Your task to perform on an android device: turn off javascript in the chrome app Image 0: 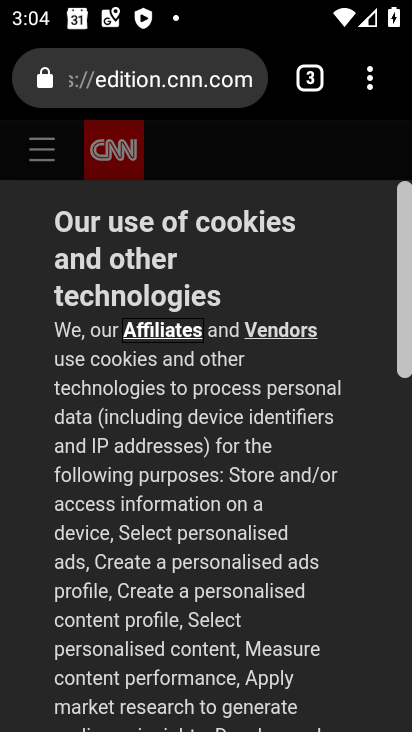
Step 0: press home button
Your task to perform on an android device: turn off javascript in the chrome app Image 1: 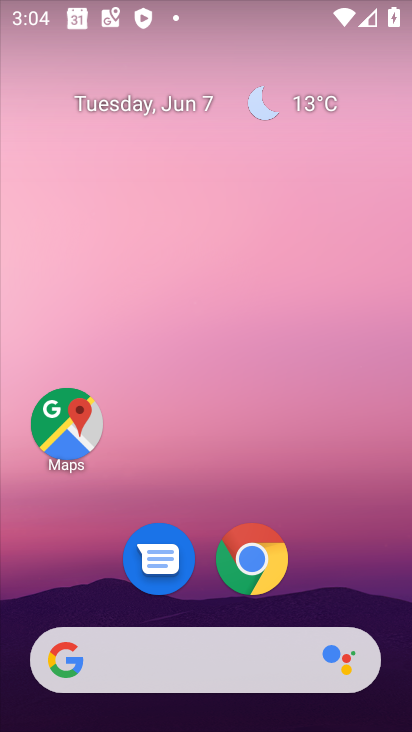
Step 1: click (252, 554)
Your task to perform on an android device: turn off javascript in the chrome app Image 2: 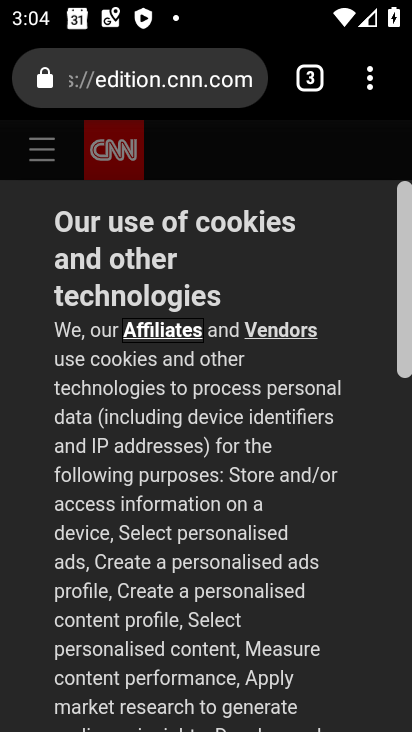
Step 2: click (371, 75)
Your task to perform on an android device: turn off javascript in the chrome app Image 3: 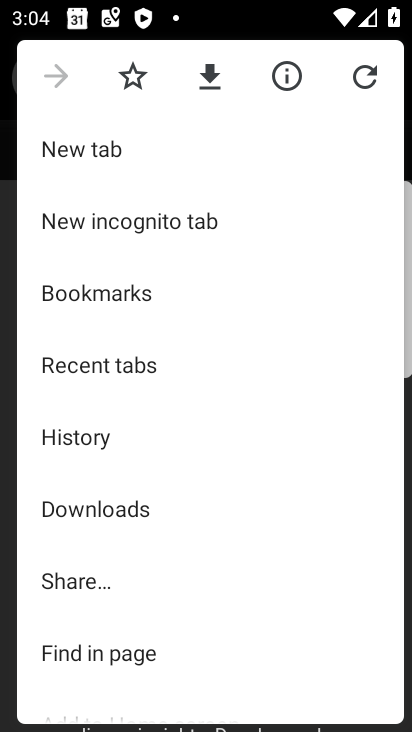
Step 3: drag from (128, 408) to (200, 276)
Your task to perform on an android device: turn off javascript in the chrome app Image 4: 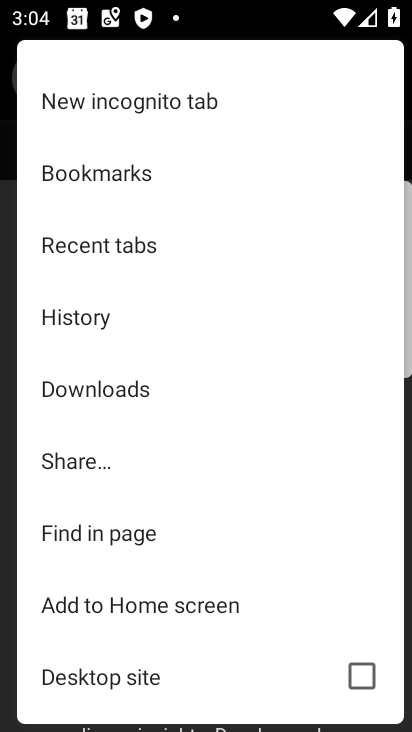
Step 4: drag from (110, 480) to (191, 304)
Your task to perform on an android device: turn off javascript in the chrome app Image 5: 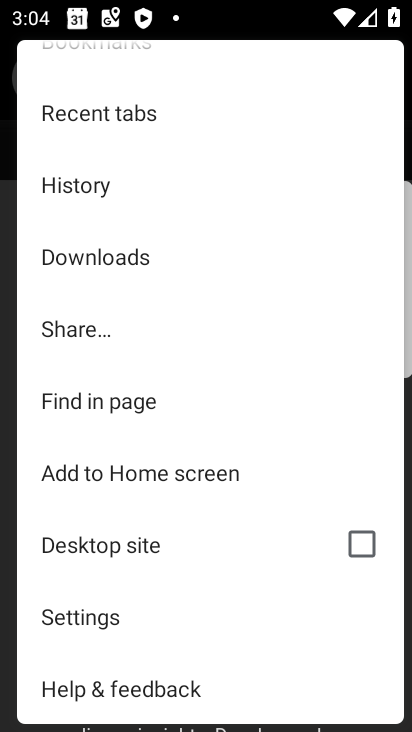
Step 5: click (88, 609)
Your task to perform on an android device: turn off javascript in the chrome app Image 6: 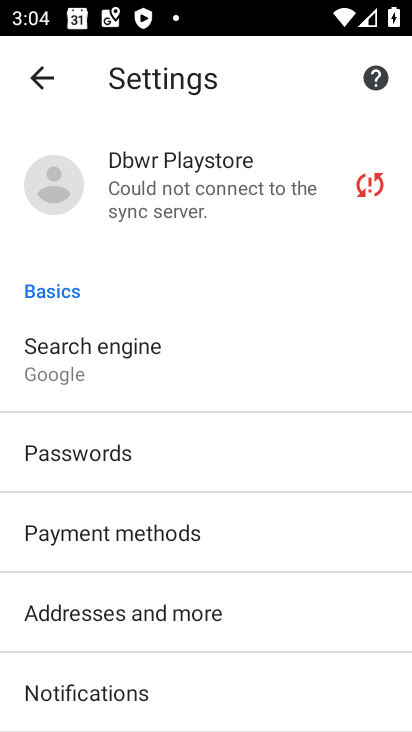
Step 6: drag from (129, 553) to (225, 401)
Your task to perform on an android device: turn off javascript in the chrome app Image 7: 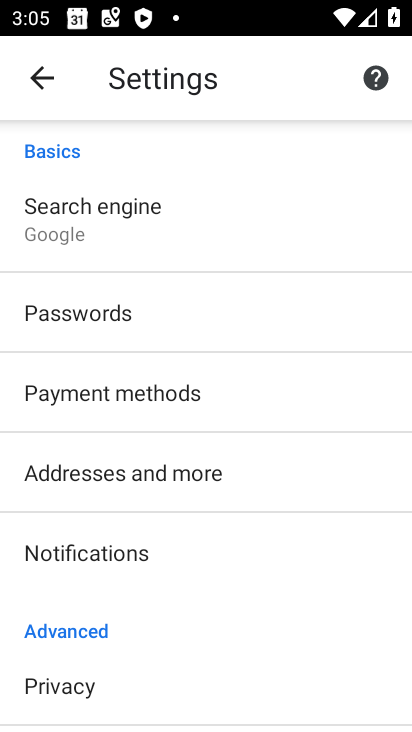
Step 7: drag from (124, 596) to (218, 442)
Your task to perform on an android device: turn off javascript in the chrome app Image 8: 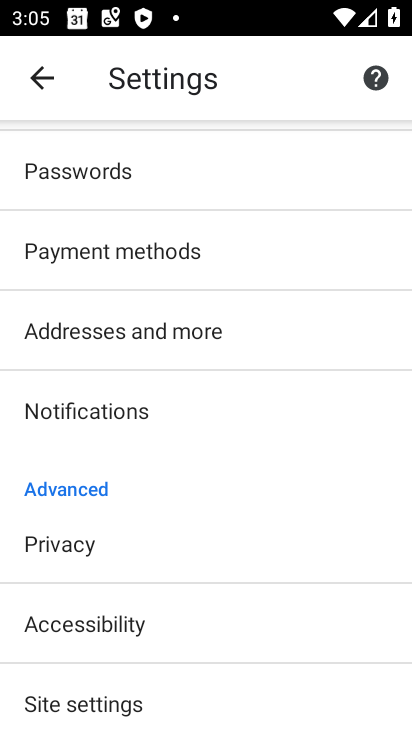
Step 8: drag from (166, 641) to (228, 496)
Your task to perform on an android device: turn off javascript in the chrome app Image 9: 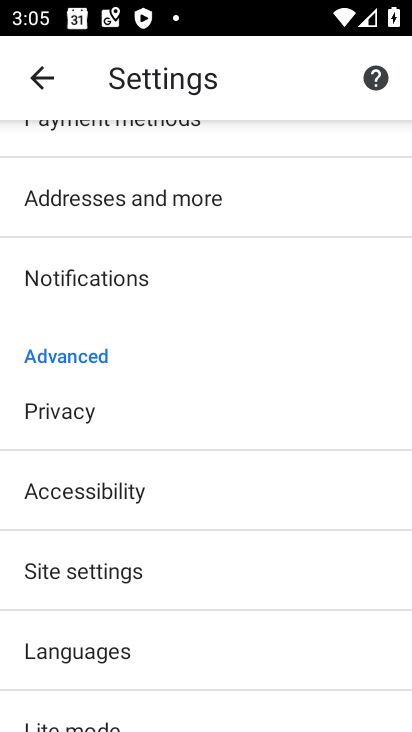
Step 9: drag from (171, 578) to (261, 462)
Your task to perform on an android device: turn off javascript in the chrome app Image 10: 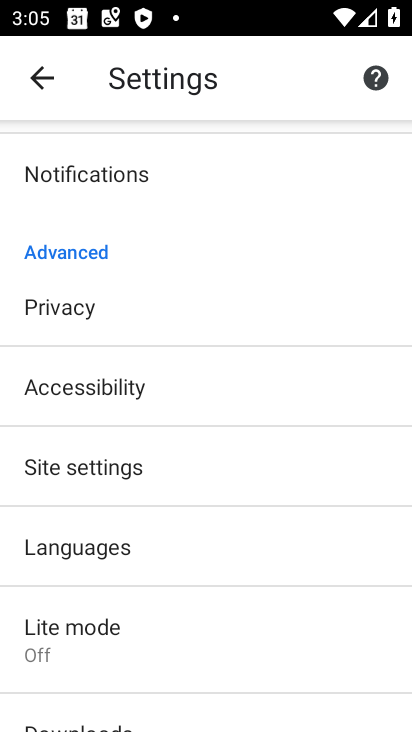
Step 10: drag from (173, 641) to (222, 501)
Your task to perform on an android device: turn off javascript in the chrome app Image 11: 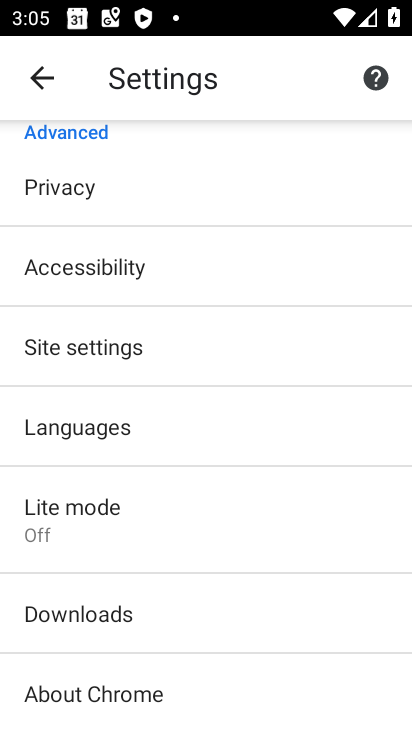
Step 11: click (100, 338)
Your task to perform on an android device: turn off javascript in the chrome app Image 12: 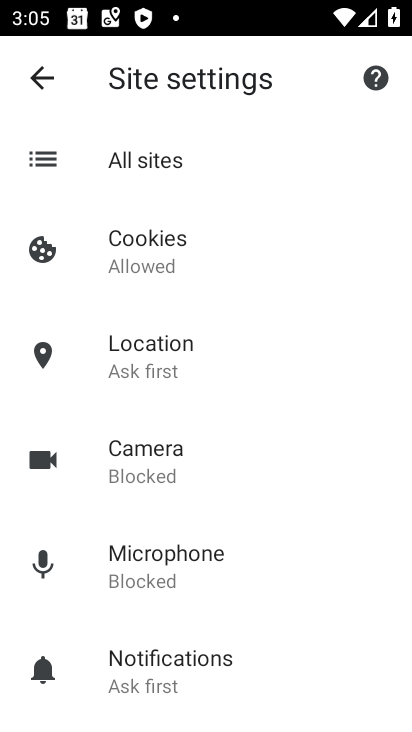
Step 12: drag from (165, 524) to (172, 380)
Your task to perform on an android device: turn off javascript in the chrome app Image 13: 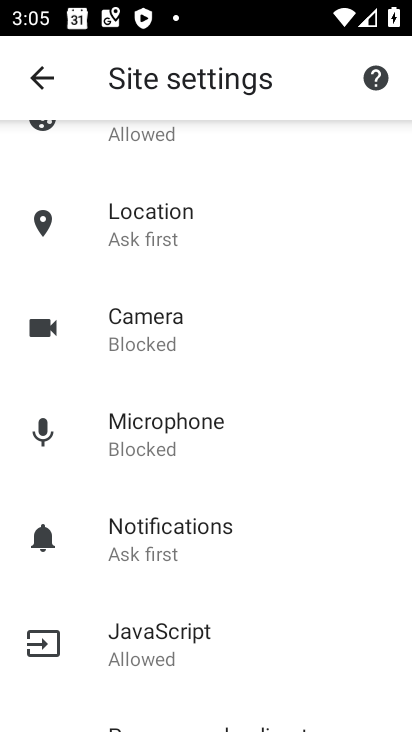
Step 13: drag from (150, 490) to (171, 392)
Your task to perform on an android device: turn off javascript in the chrome app Image 14: 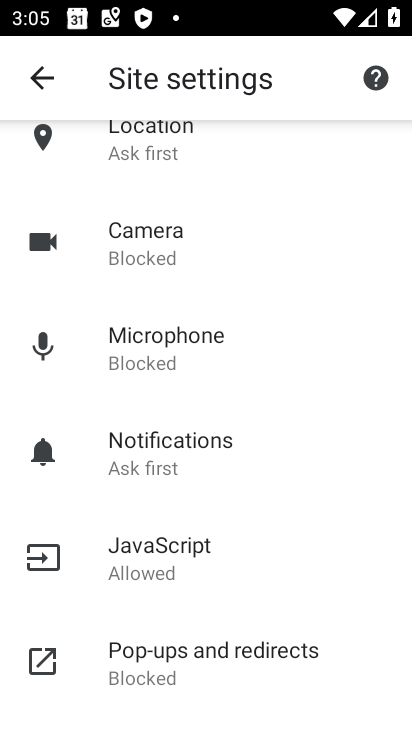
Step 14: click (166, 538)
Your task to perform on an android device: turn off javascript in the chrome app Image 15: 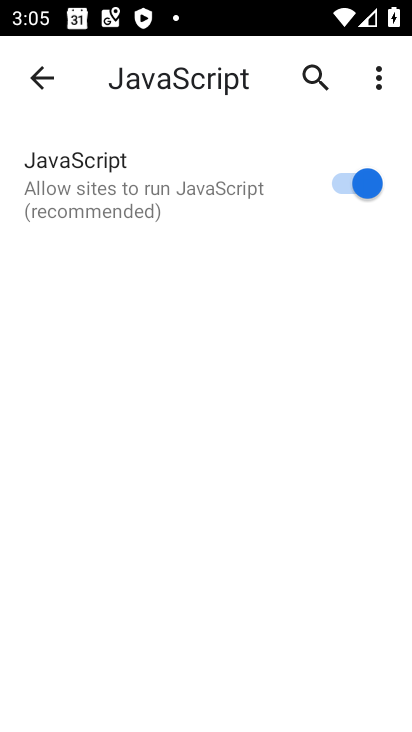
Step 15: click (352, 184)
Your task to perform on an android device: turn off javascript in the chrome app Image 16: 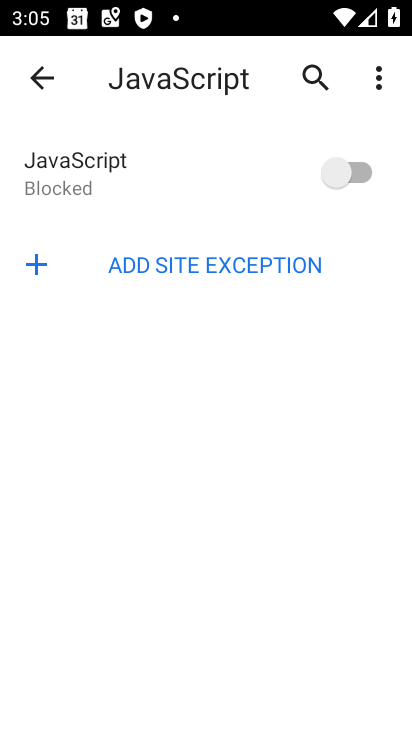
Step 16: task complete